Your task to perform on an android device: set the timer Image 0: 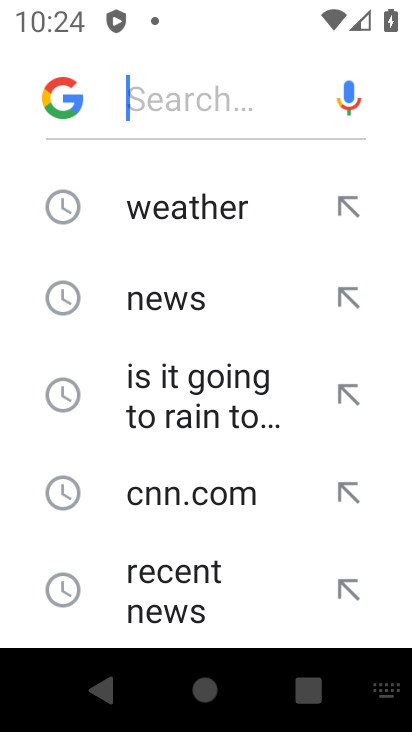
Step 0: press home button
Your task to perform on an android device: set the timer Image 1: 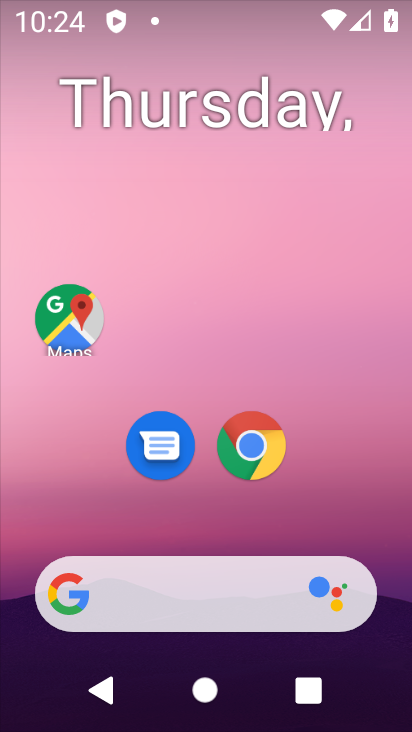
Step 1: drag from (237, 719) to (259, 198)
Your task to perform on an android device: set the timer Image 2: 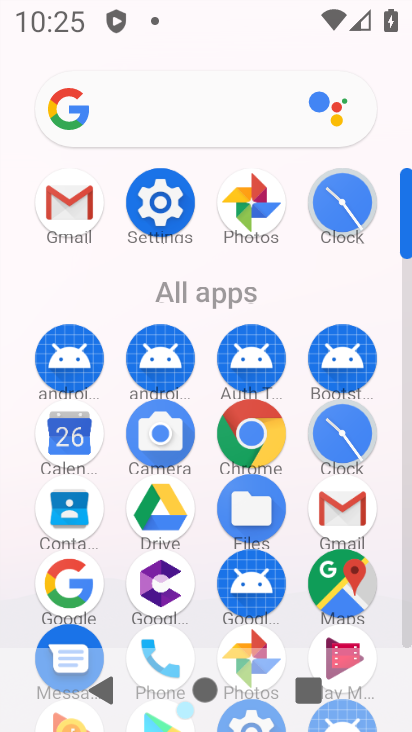
Step 2: click (338, 428)
Your task to perform on an android device: set the timer Image 3: 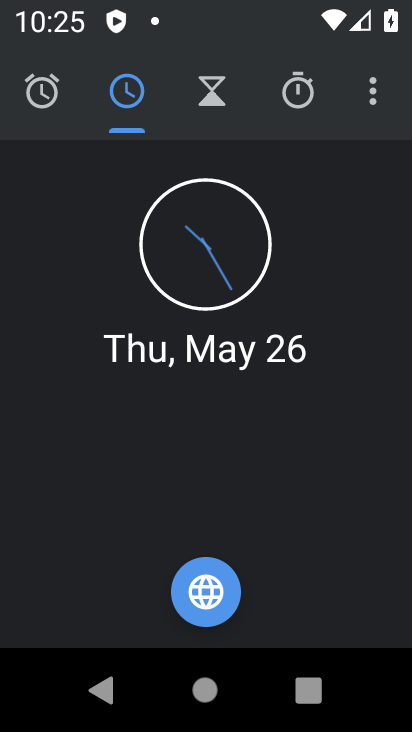
Step 3: click (209, 86)
Your task to perform on an android device: set the timer Image 4: 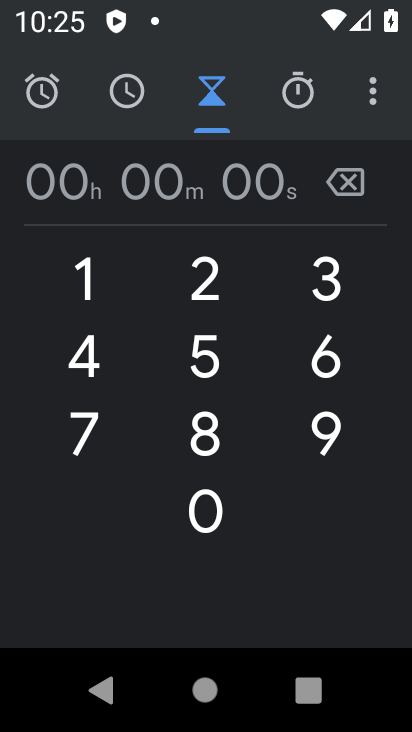
Step 4: click (194, 267)
Your task to perform on an android device: set the timer Image 5: 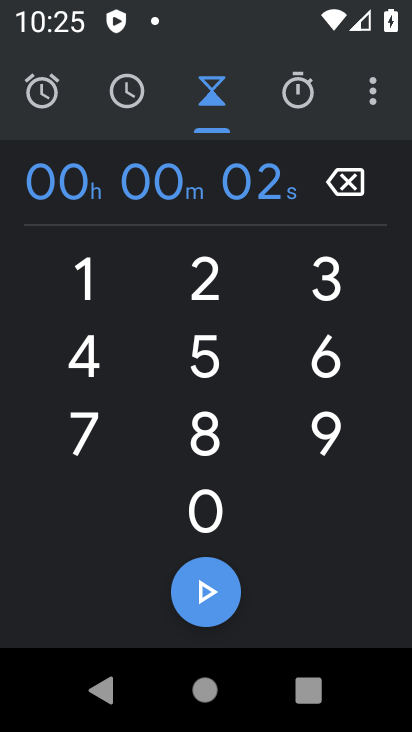
Step 5: click (79, 271)
Your task to perform on an android device: set the timer Image 6: 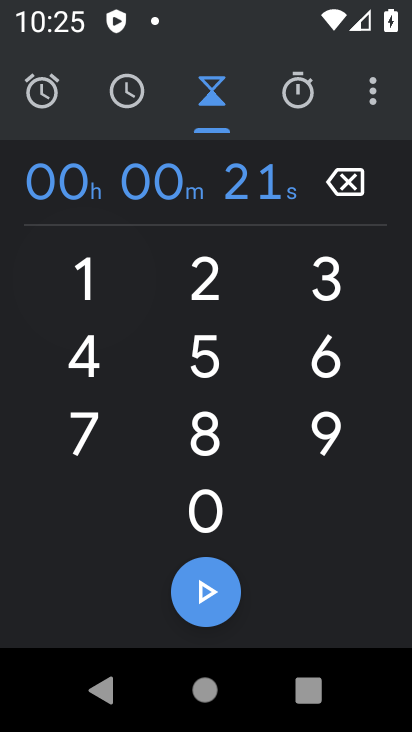
Step 6: click (94, 343)
Your task to perform on an android device: set the timer Image 7: 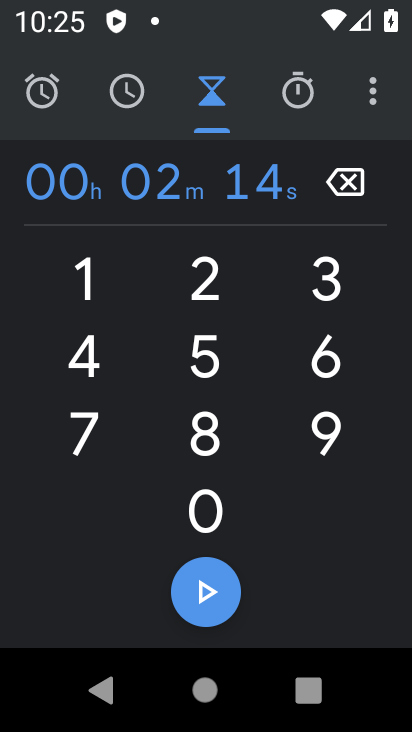
Step 7: click (192, 497)
Your task to perform on an android device: set the timer Image 8: 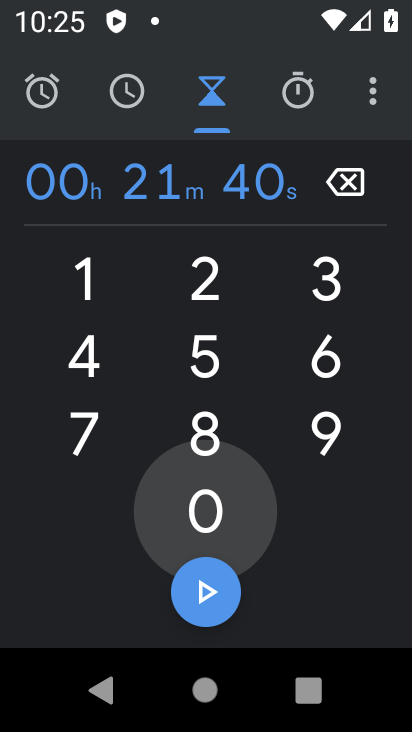
Step 8: click (325, 441)
Your task to perform on an android device: set the timer Image 9: 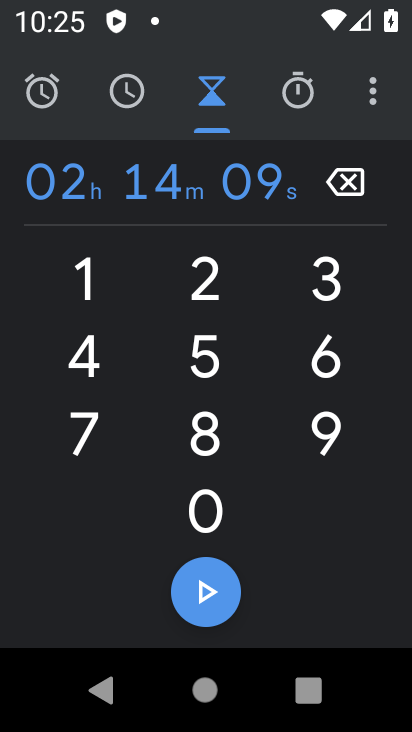
Step 9: click (212, 596)
Your task to perform on an android device: set the timer Image 10: 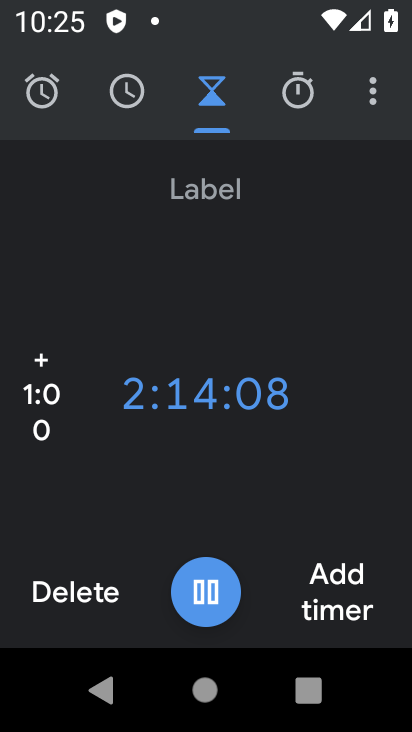
Step 10: task complete